Your task to perform on an android device: turn on the 12-hour format for clock Image 0: 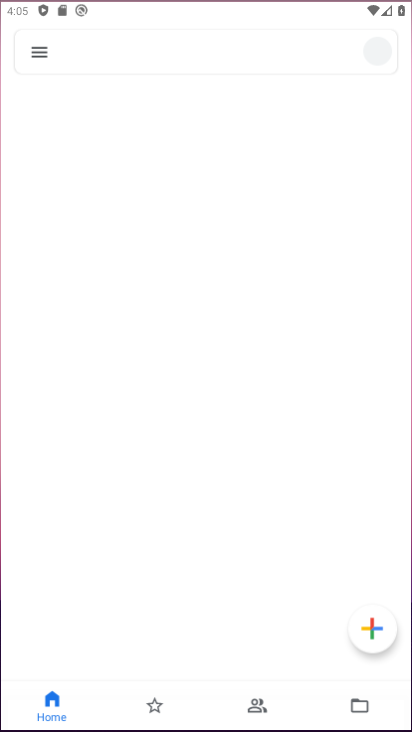
Step 0: drag from (226, 640) to (350, 3)
Your task to perform on an android device: turn on the 12-hour format for clock Image 1: 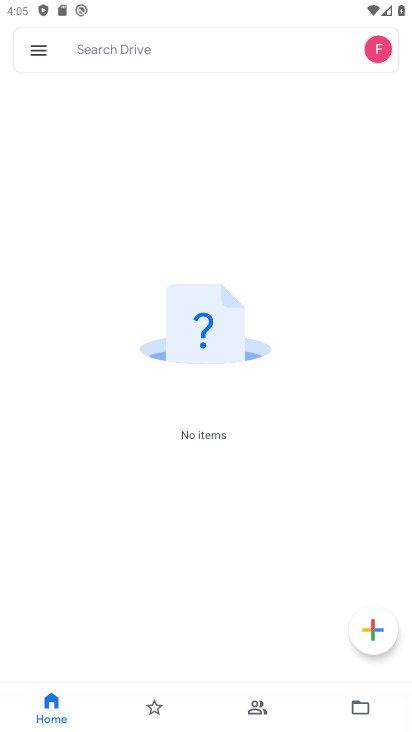
Step 1: press home button
Your task to perform on an android device: turn on the 12-hour format for clock Image 2: 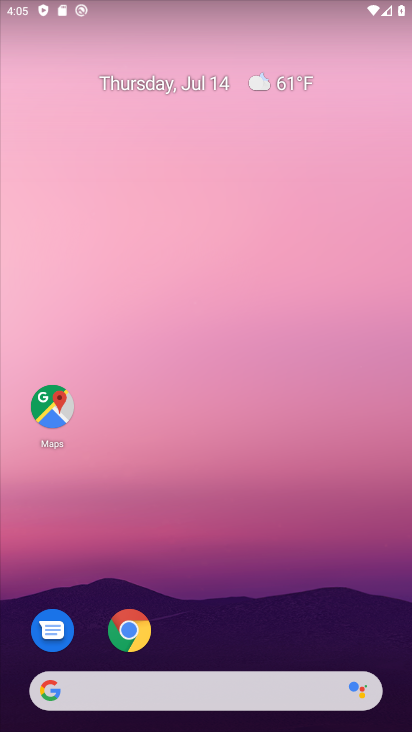
Step 2: drag from (272, 619) to (206, 156)
Your task to perform on an android device: turn on the 12-hour format for clock Image 3: 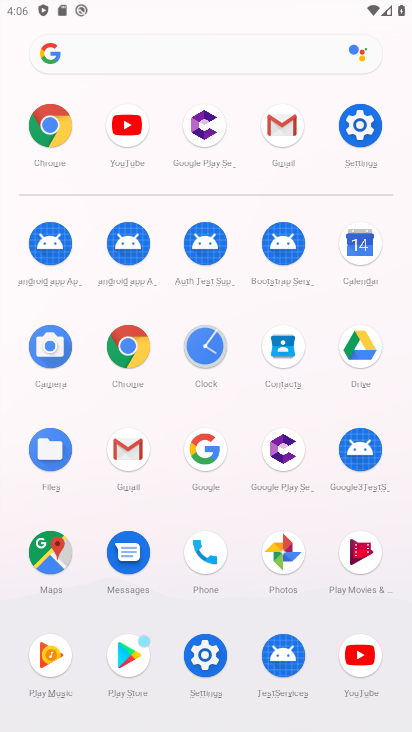
Step 3: click (216, 350)
Your task to perform on an android device: turn on the 12-hour format for clock Image 4: 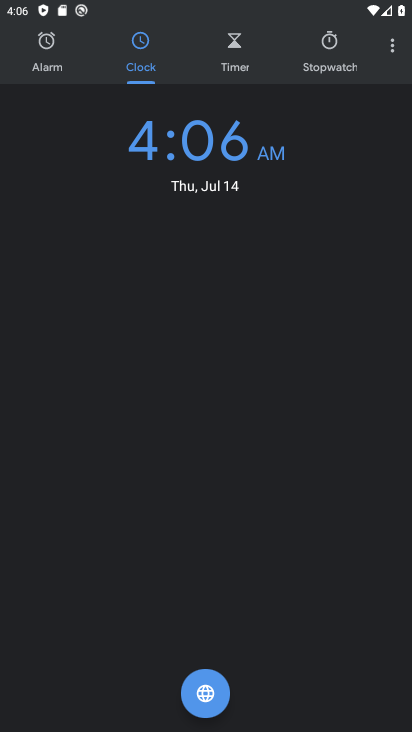
Step 4: click (393, 47)
Your task to perform on an android device: turn on the 12-hour format for clock Image 5: 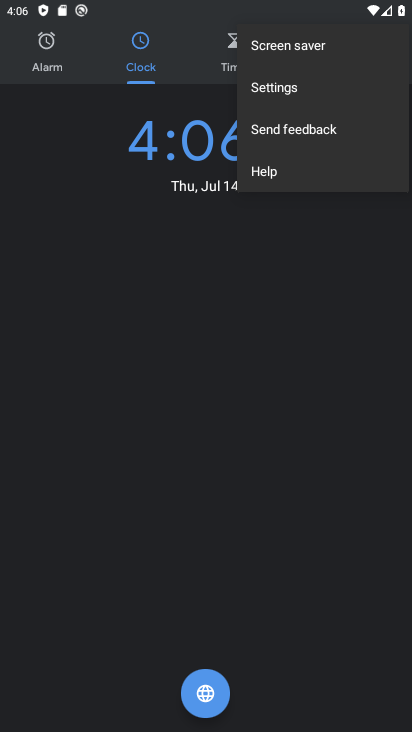
Step 5: click (303, 100)
Your task to perform on an android device: turn on the 12-hour format for clock Image 6: 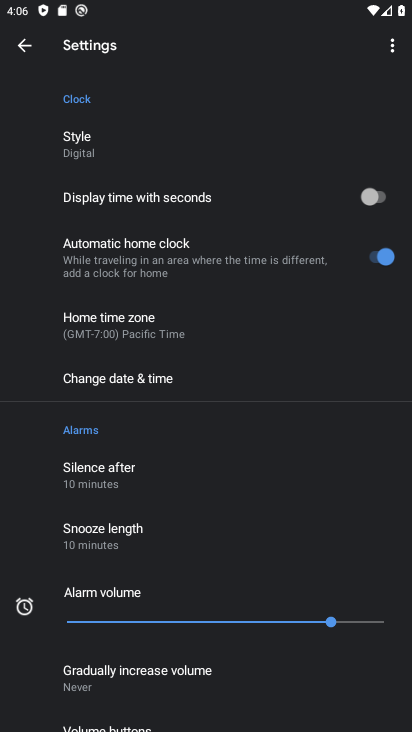
Step 6: click (206, 387)
Your task to perform on an android device: turn on the 12-hour format for clock Image 7: 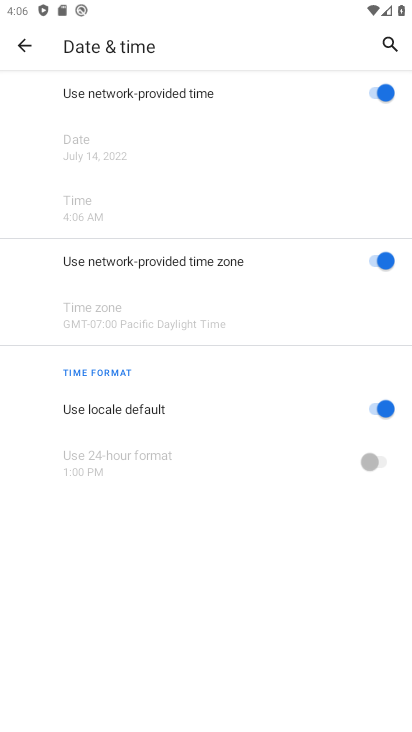
Step 7: task complete